Your task to perform on an android device: remove spam from my inbox in the gmail app Image 0: 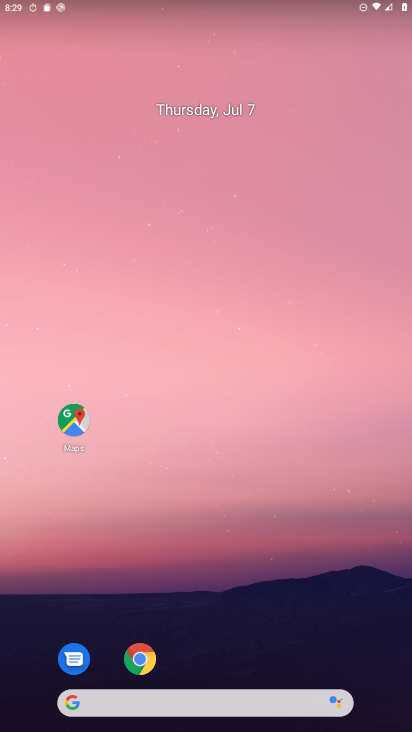
Step 0: drag from (373, 697) to (311, 63)
Your task to perform on an android device: remove spam from my inbox in the gmail app Image 1: 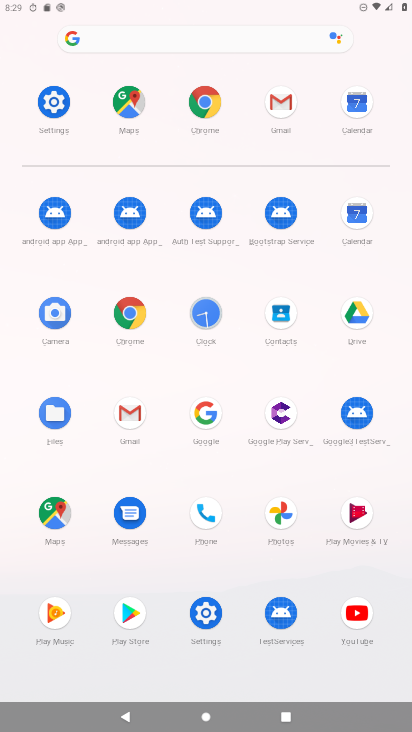
Step 1: click (121, 424)
Your task to perform on an android device: remove spam from my inbox in the gmail app Image 2: 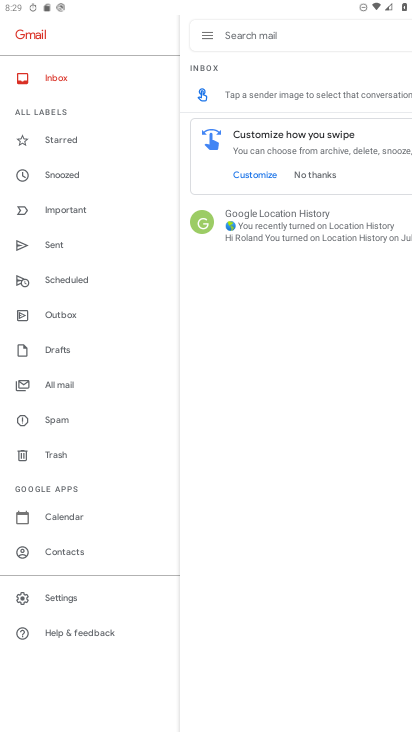
Step 2: task complete